Your task to perform on an android device: turn on notifications settings in the gmail app Image 0: 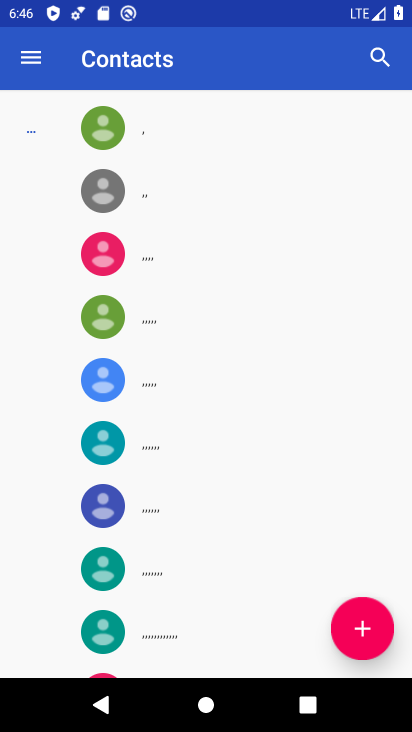
Step 0: press home button
Your task to perform on an android device: turn on notifications settings in the gmail app Image 1: 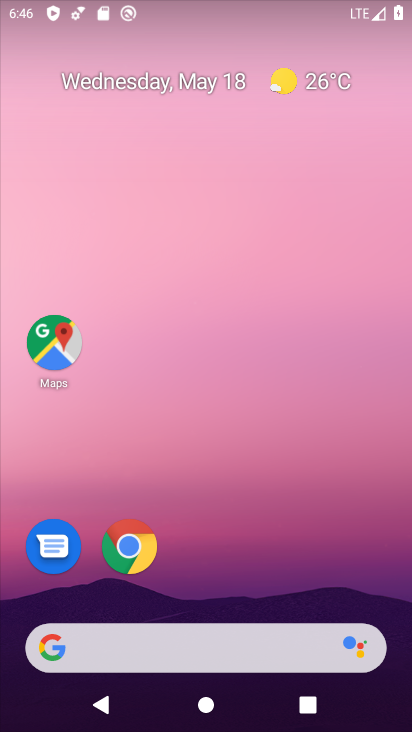
Step 1: drag from (380, 605) to (314, 48)
Your task to perform on an android device: turn on notifications settings in the gmail app Image 2: 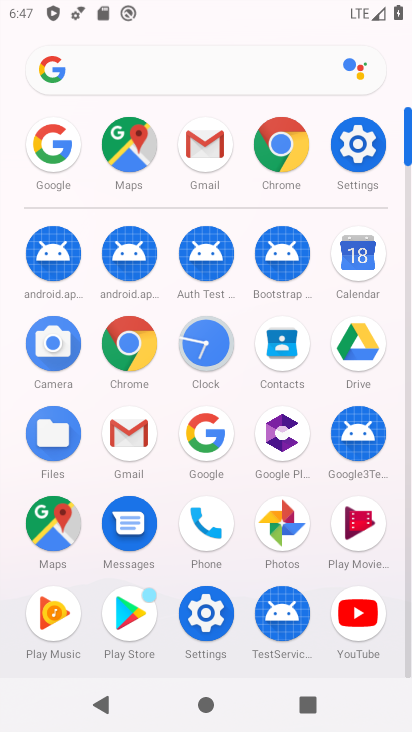
Step 2: click (121, 435)
Your task to perform on an android device: turn on notifications settings in the gmail app Image 3: 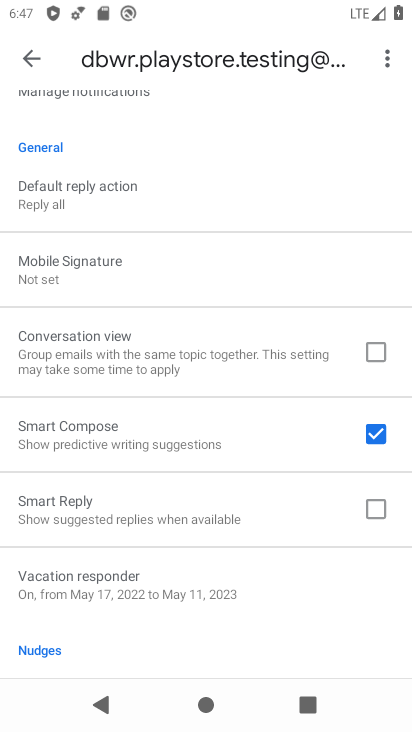
Step 3: drag from (183, 206) to (227, 638)
Your task to perform on an android device: turn on notifications settings in the gmail app Image 4: 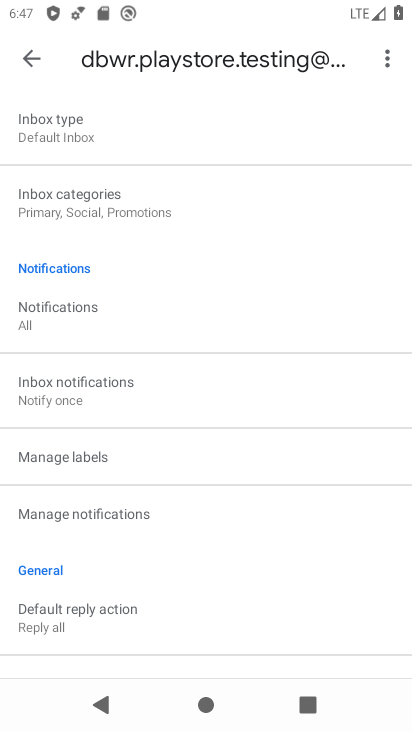
Step 4: click (75, 309)
Your task to perform on an android device: turn on notifications settings in the gmail app Image 5: 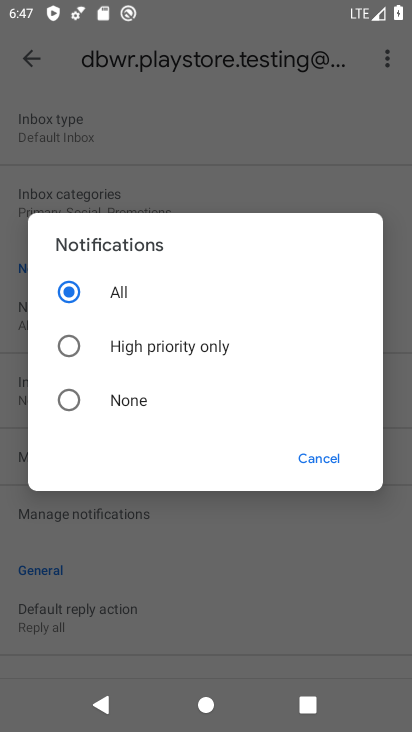
Step 5: task complete